Your task to perform on an android device: Open Android settings Image 0: 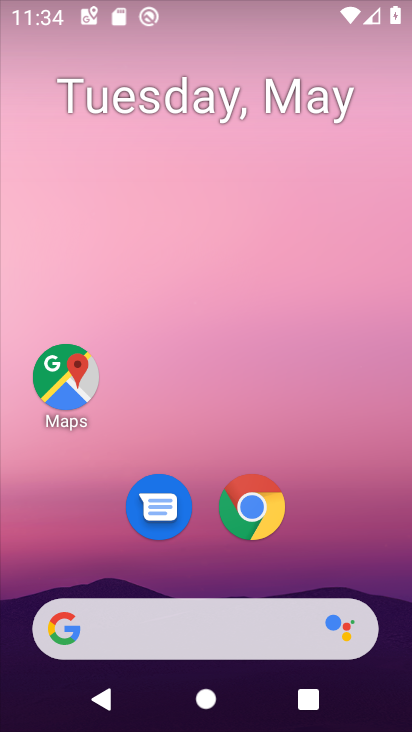
Step 0: drag from (261, 661) to (200, 113)
Your task to perform on an android device: Open Android settings Image 1: 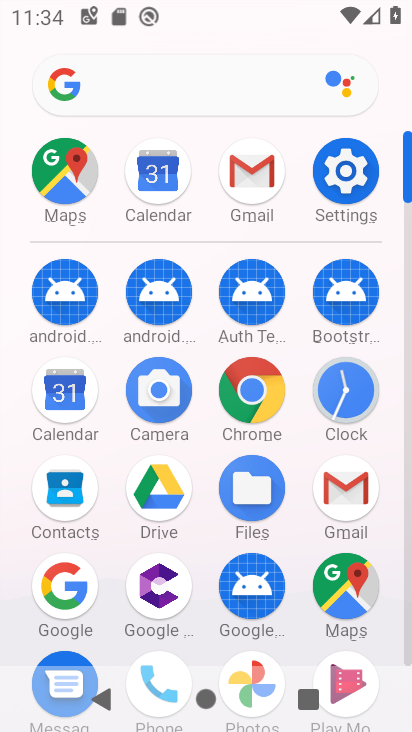
Step 1: click (344, 179)
Your task to perform on an android device: Open Android settings Image 2: 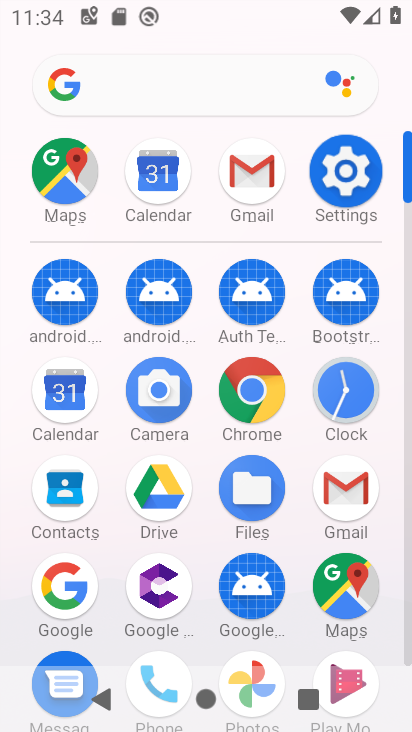
Step 2: click (345, 178)
Your task to perform on an android device: Open Android settings Image 3: 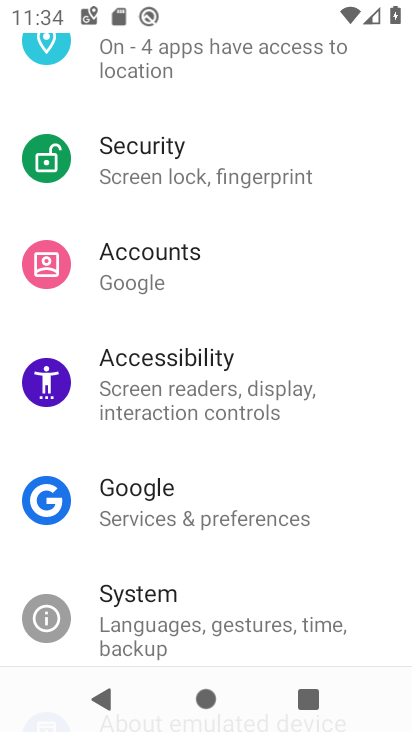
Step 3: click (345, 178)
Your task to perform on an android device: Open Android settings Image 4: 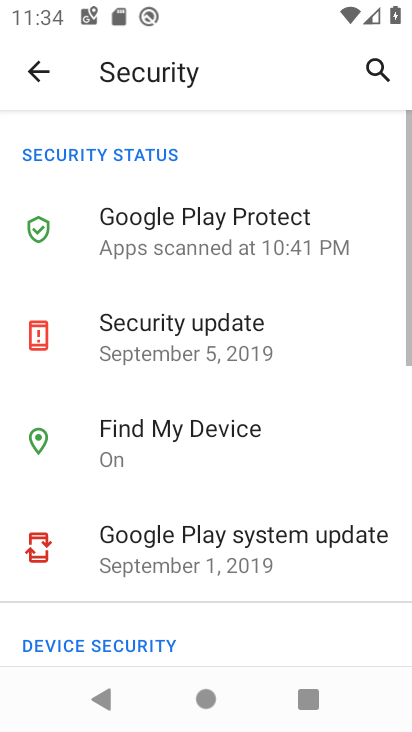
Step 4: click (36, 74)
Your task to perform on an android device: Open Android settings Image 5: 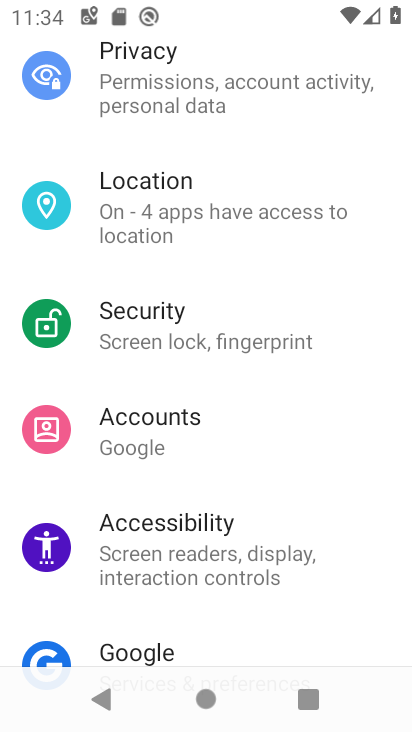
Step 5: drag from (177, 456) to (169, 194)
Your task to perform on an android device: Open Android settings Image 6: 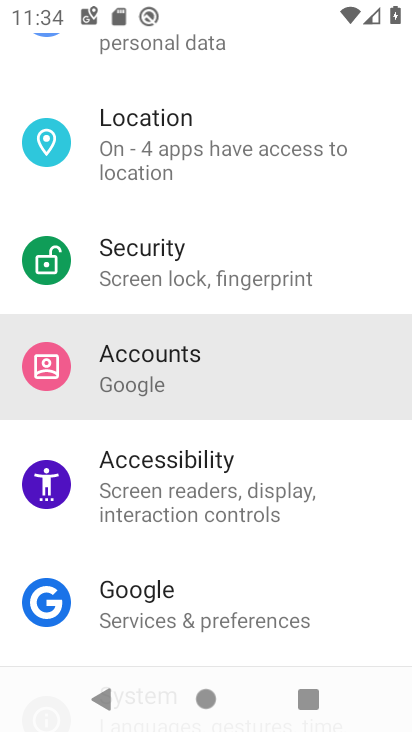
Step 6: drag from (238, 463) to (193, 151)
Your task to perform on an android device: Open Android settings Image 7: 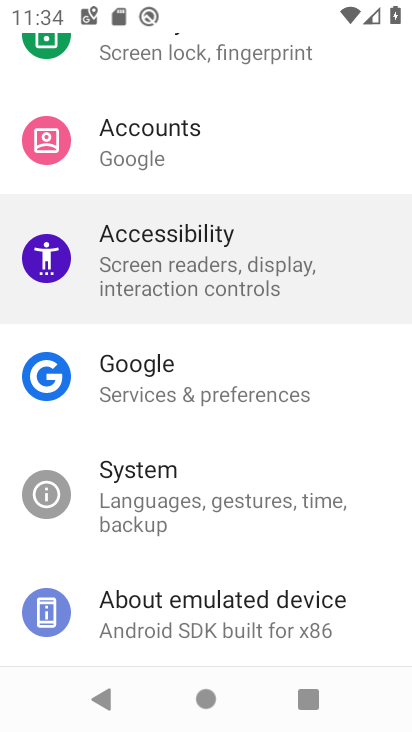
Step 7: drag from (198, 428) to (273, 152)
Your task to perform on an android device: Open Android settings Image 8: 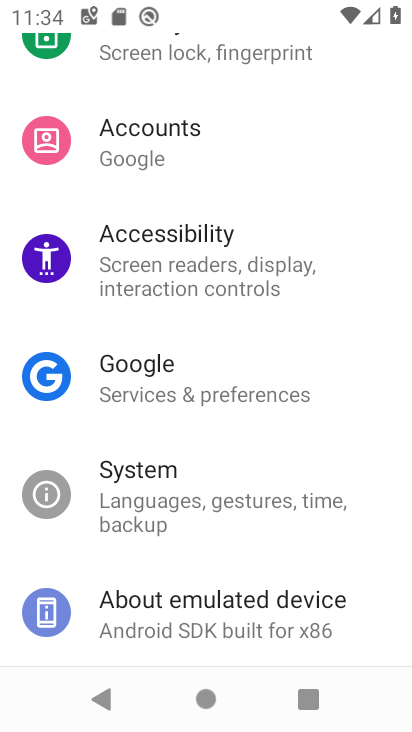
Step 8: click (210, 625)
Your task to perform on an android device: Open Android settings Image 9: 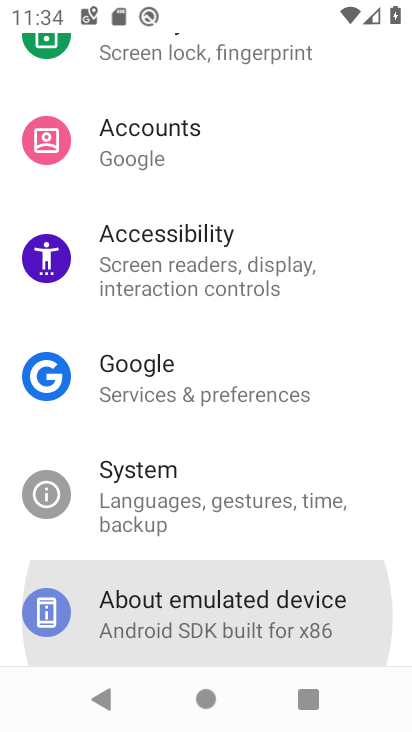
Step 9: click (210, 625)
Your task to perform on an android device: Open Android settings Image 10: 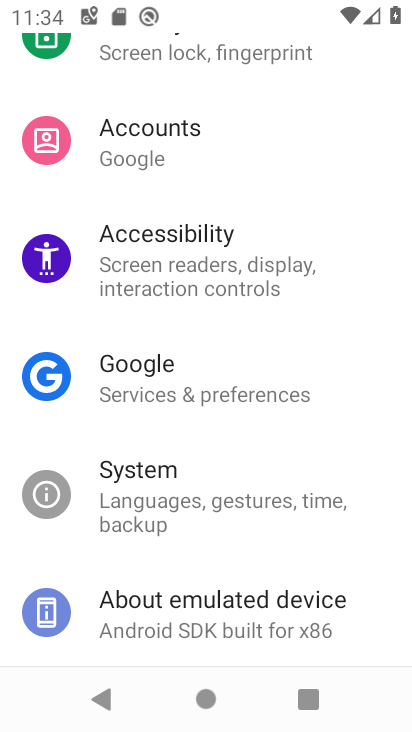
Step 10: click (210, 625)
Your task to perform on an android device: Open Android settings Image 11: 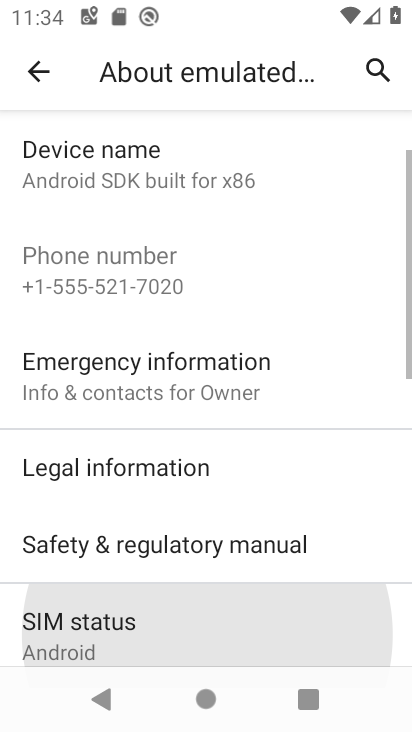
Step 11: click (209, 624)
Your task to perform on an android device: Open Android settings Image 12: 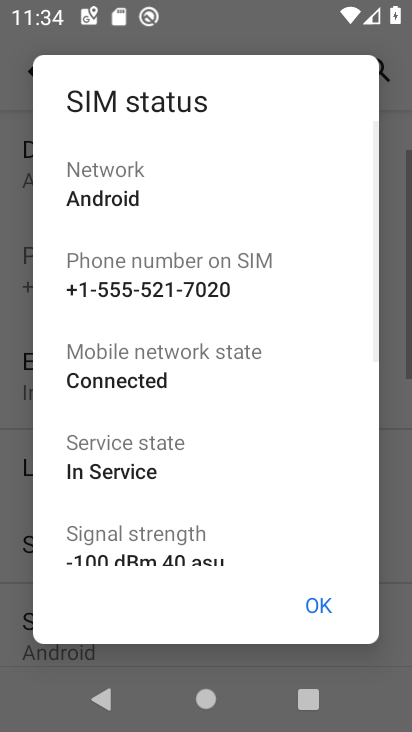
Step 12: task complete